Your task to perform on an android device: check out phone information Image 0: 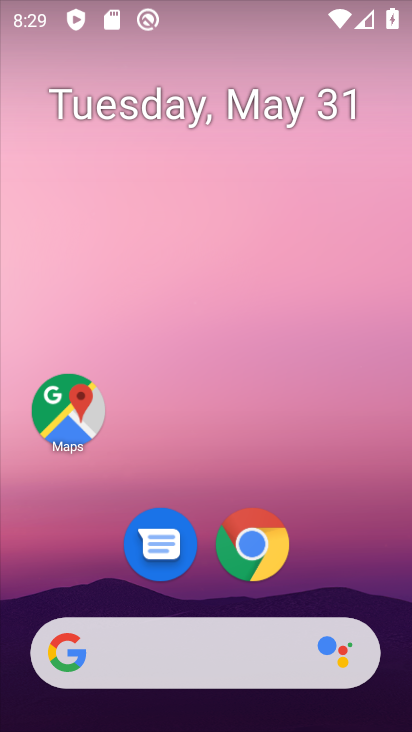
Step 0: drag from (245, 654) to (279, 260)
Your task to perform on an android device: check out phone information Image 1: 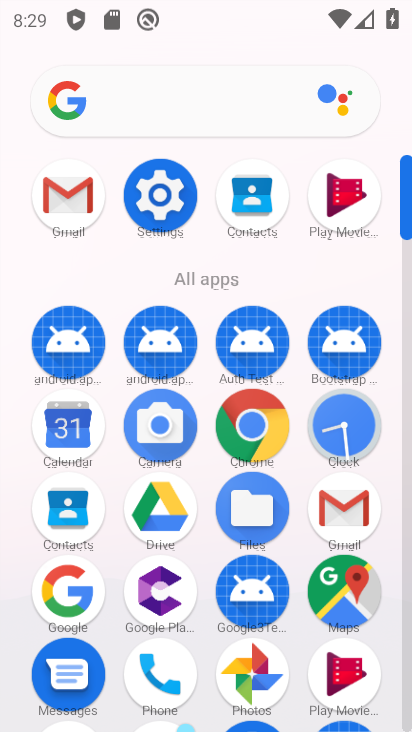
Step 1: click (159, 197)
Your task to perform on an android device: check out phone information Image 2: 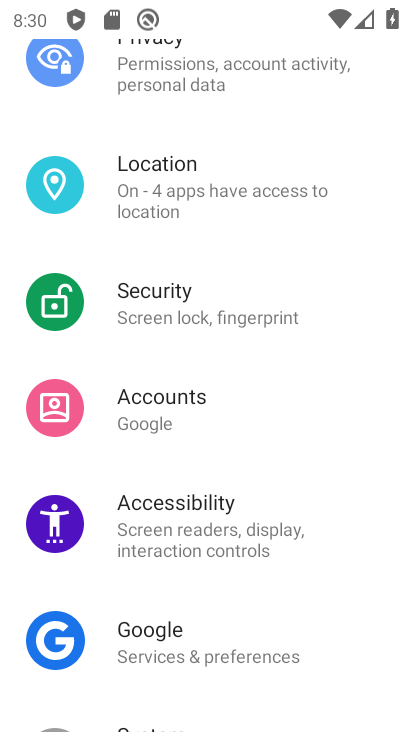
Step 2: drag from (225, 598) to (233, 237)
Your task to perform on an android device: check out phone information Image 3: 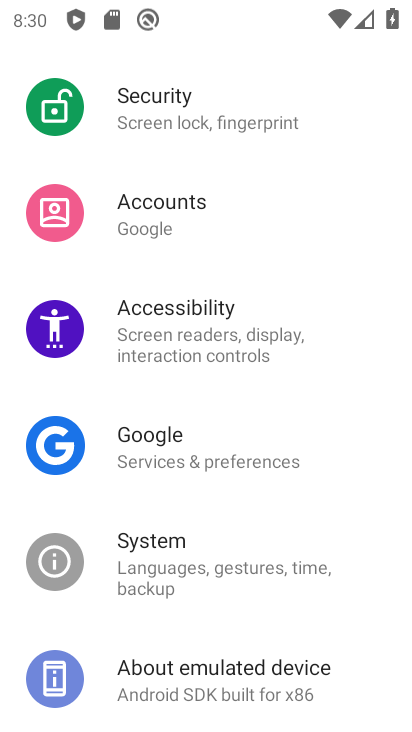
Step 3: click (203, 687)
Your task to perform on an android device: check out phone information Image 4: 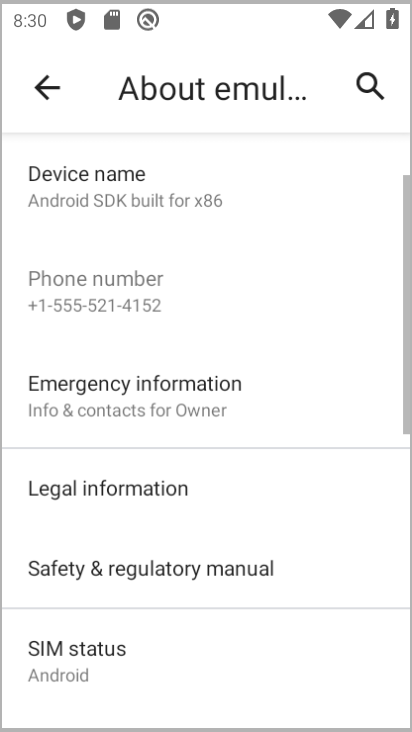
Step 4: click (203, 687)
Your task to perform on an android device: check out phone information Image 5: 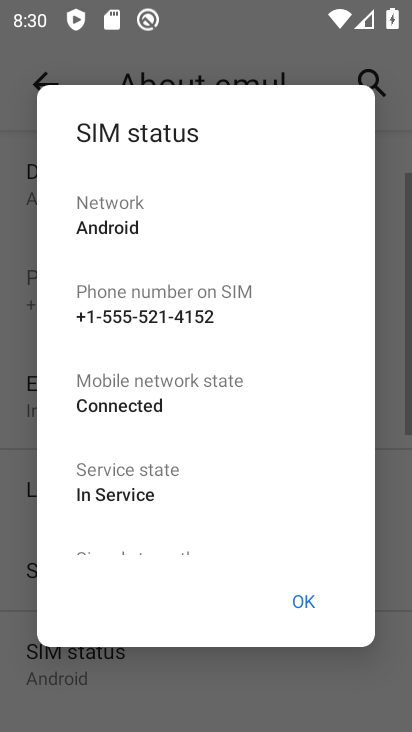
Step 5: click (284, 593)
Your task to perform on an android device: check out phone information Image 6: 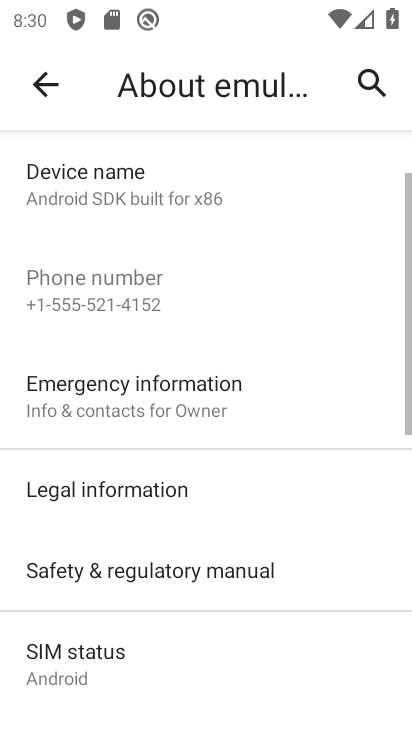
Step 6: task complete